Your task to perform on an android device: Open Android settings Image 0: 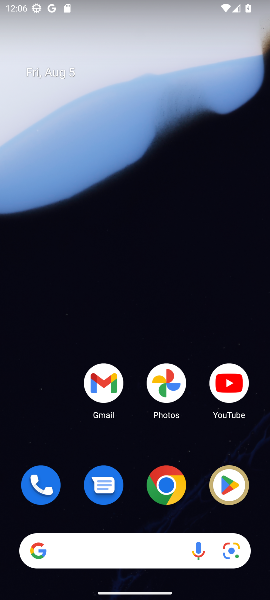
Step 0: click (133, 306)
Your task to perform on an android device: Open Android settings Image 1: 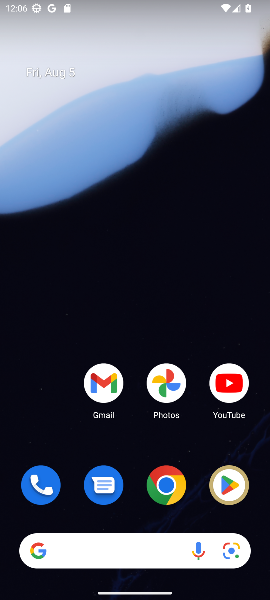
Step 1: drag from (43, 418) to (80, 41)
Your task to perform on an android device: Open Android settings Image 2: 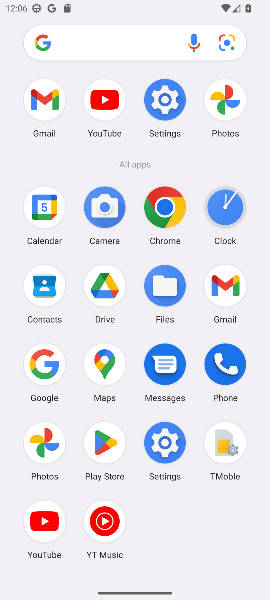
Step 2: click (165, 103)
Your task to perform on an android device: Open Android settings Image 3: 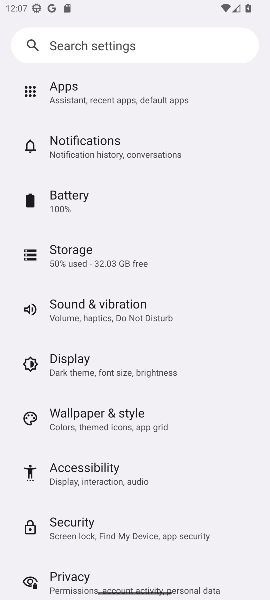
Step 3: task complete